Your task to perform on an android device: toggle data saver in the chrome app Image 0: 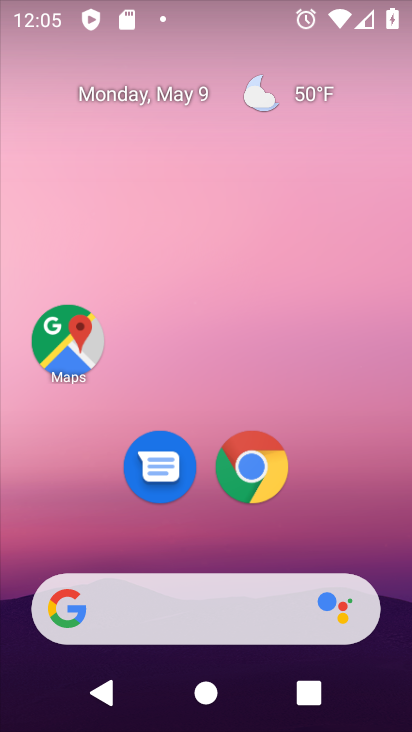
Step 0: drag from (206, 540) to (241, 48)
Your task to perform on an android device: toggle data saver in the chrome app Image 1: 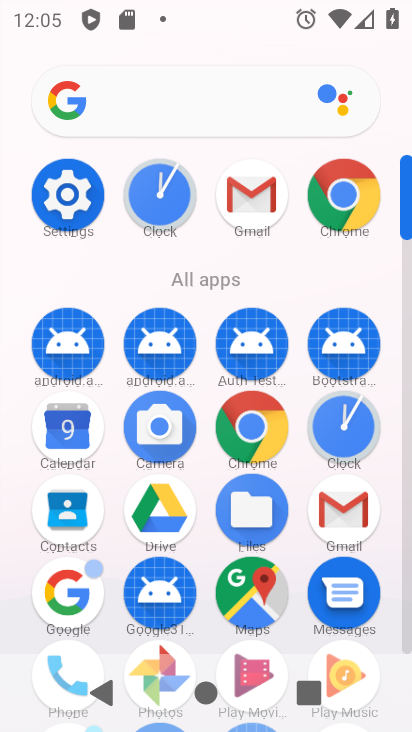
Step 1: click (251, 419)
Your task to perform on an android device: toggle data saver in the chrome app Image 2: 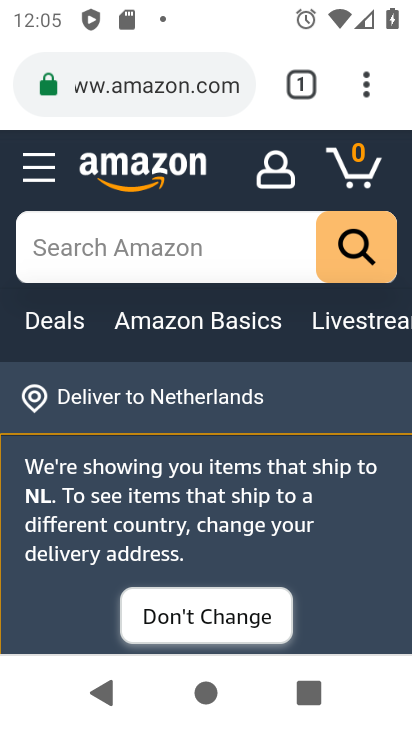
Step 2: click (364, 79)
Your task to perform on an android device: toggle data saver in the chrome app Image 3: 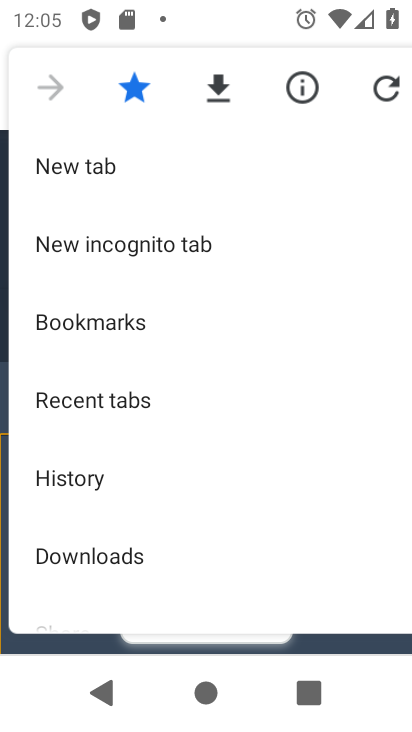
Step 3: drag from (198, 552) to (250, 152)
Your task to perform on an android device: toggle data saver in the chrome app Image 4: 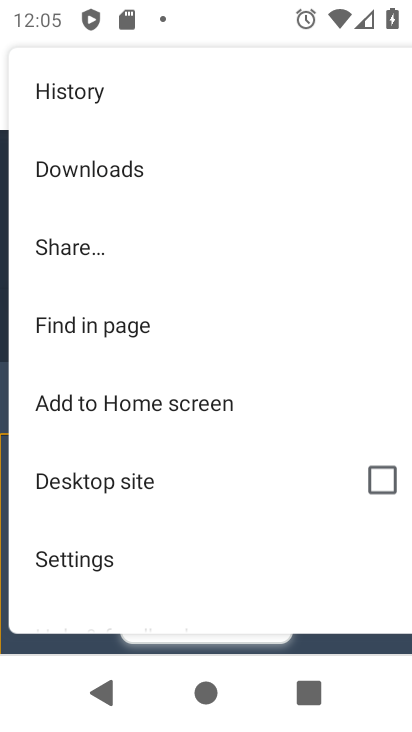
Step 4: drag from (219, 562) to (295, 202)
Your task to perform on an android device: toggle data saver in the chrome app Image 5: 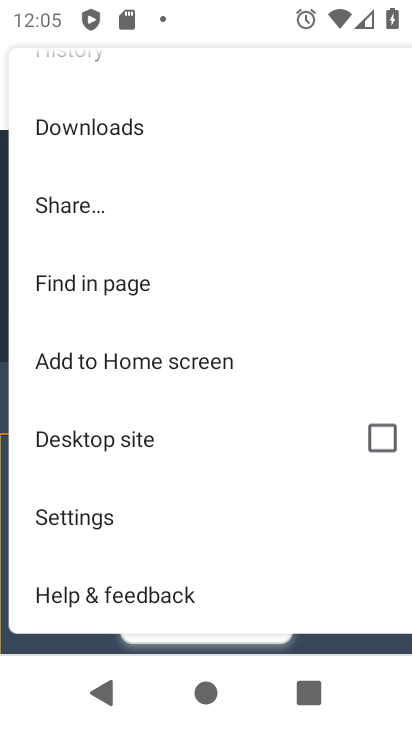
Step 5: click (127, 515)
Your task to perform on an android device: toggle data saver in the chrome app Image 6: 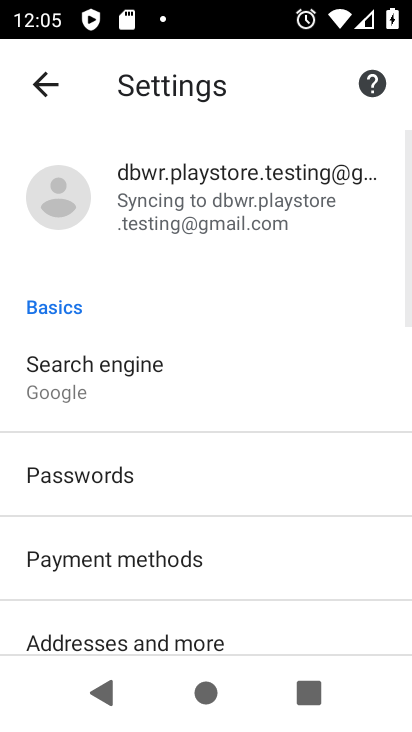
Step 6: drag from (258, 605) to (299, 199)
Your task to perform on an android device: toggle data saver in the chrome app Image 7: 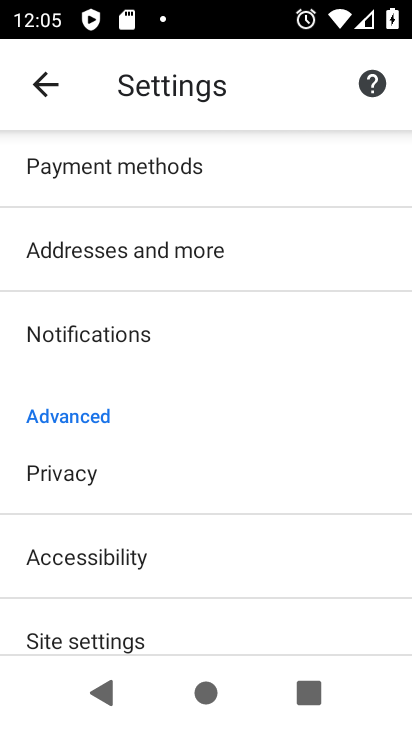
Step 7: drag from (225, 605) to (277, 241)
Your task to perform on an android device: toggle data saver in the chrome app Image 8: 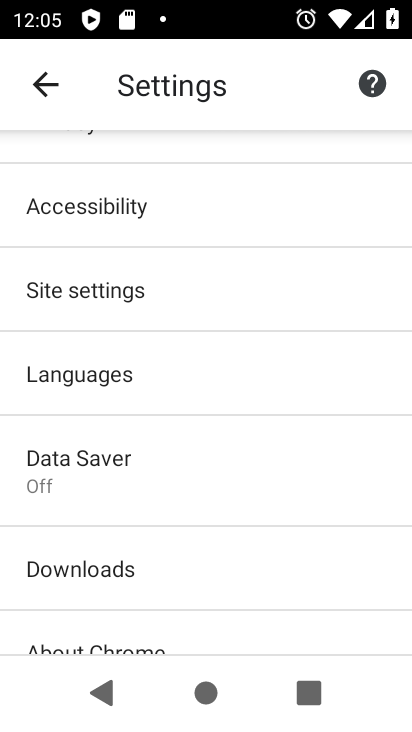
Step 8: click (126, 489)
Your task to perform on an android device: toggle data saver in the chrome app Image 9: 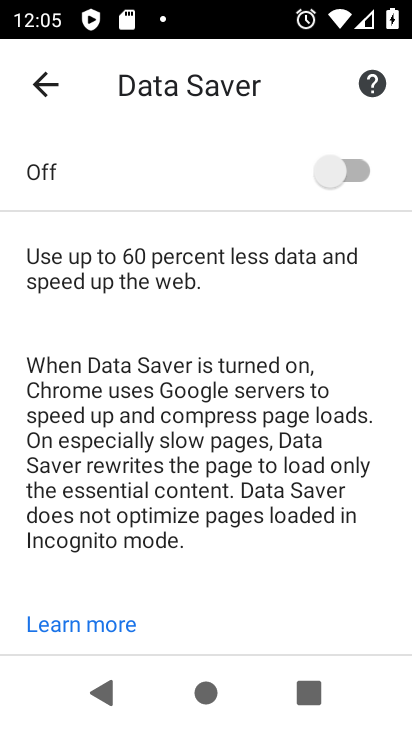
Step 9: click (352, 162)
Your task to perform on an android device: toggle data saver in the chrome app Image 10: 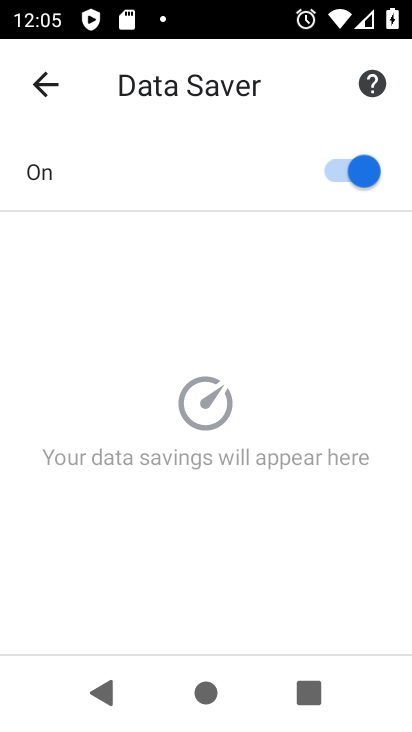
Step 10: task complete